Your task to perform on an android device: Open wifi settings Image 0: 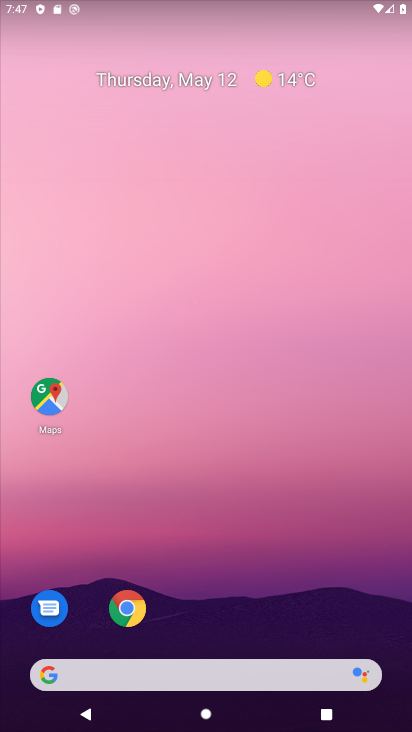
Step 0: drag from (228, 581) to (146, 5)
Your task to perform on an android device: Open wifi settings Image 1: 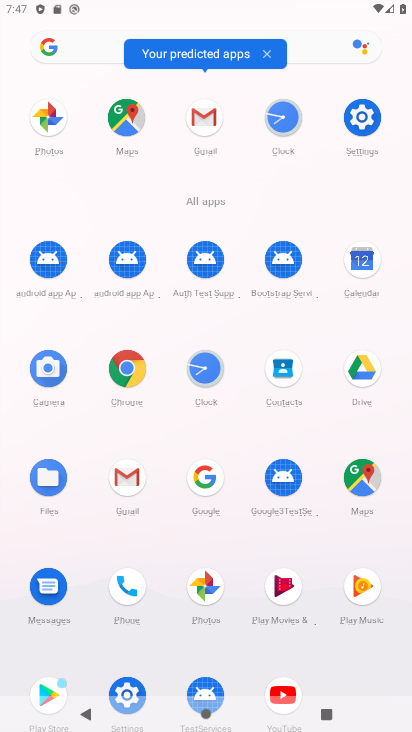
Step 1: click (346, 116)
Your task to perform on an android device: Open wifi settings Image 2: 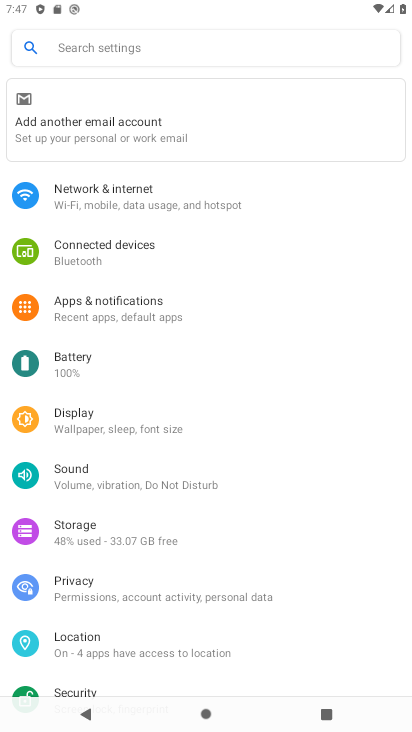
Step 2: click (217, 203)
Your task to perform on an android device: Open wifi settings Image 3: 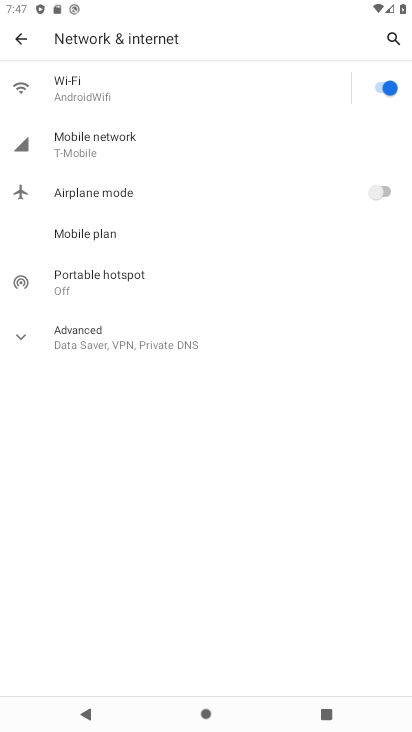
Step 3: click (142, 103)
Your task to perform on an android device: Open wifi settings Image 4: 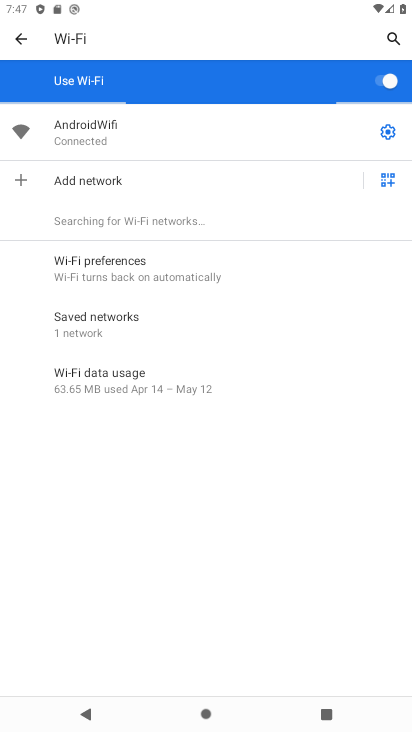
Step 4: task complete